Your task to perform on an android device: change text size in settings app Image 0: 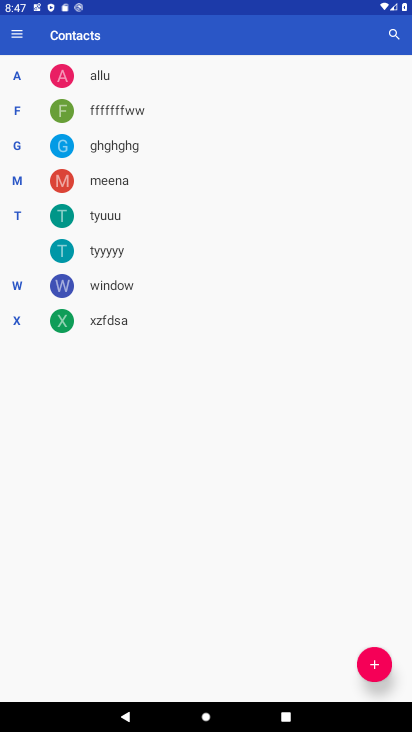
Step 0: press home button
Your task to perform on an android device: change text size in settings app Image 1: 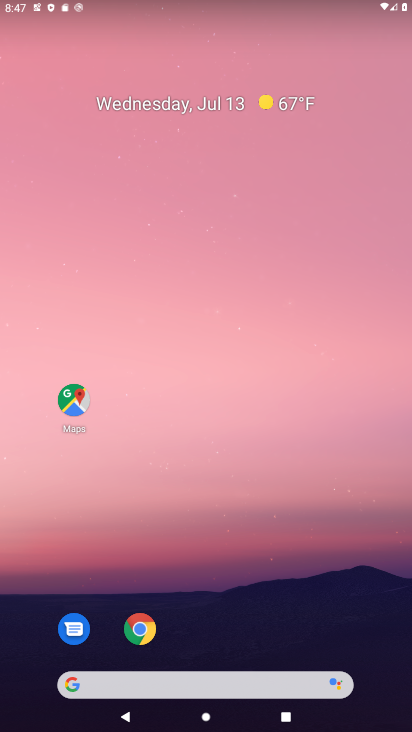
Step 1: drag from (241, 612) to (139, 1)
Your task to perform on an android device: change text size in settings app Image 2: 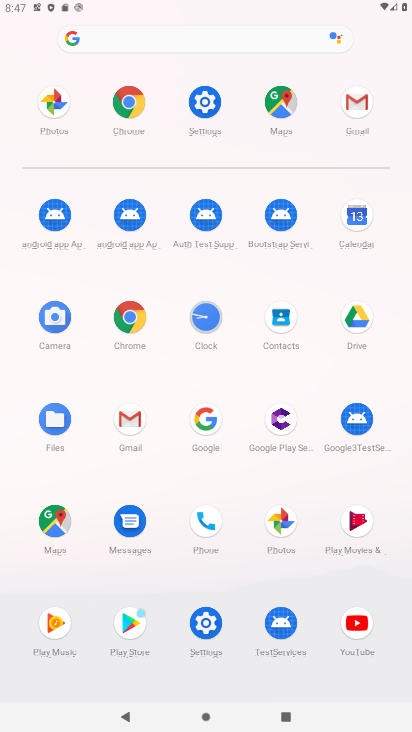
Step 2: click (197, 631)
Your task to perform on an android device: change text size in settings app Image 3: 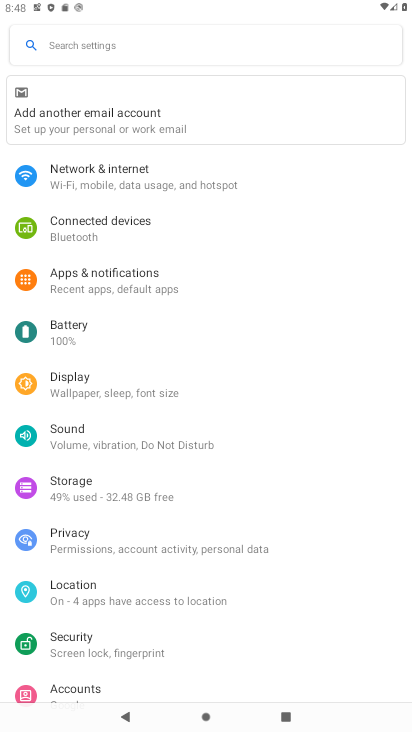
Step 3: click (120, 390)
Your task to perform on an android device: change text size in settings app Image 4: 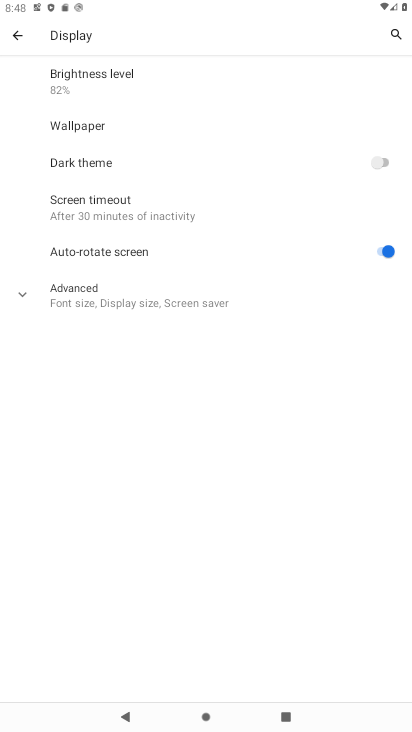
Step 4: click (87, 299)
Your task to perform on an android device: change text size in settings app Image 5: 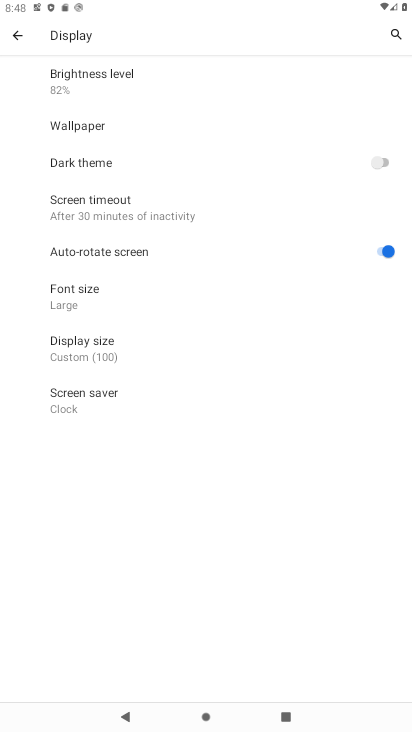
Step 5: click (84, 286)
Your task to perform on an android device: change text size in settings app Image 6: 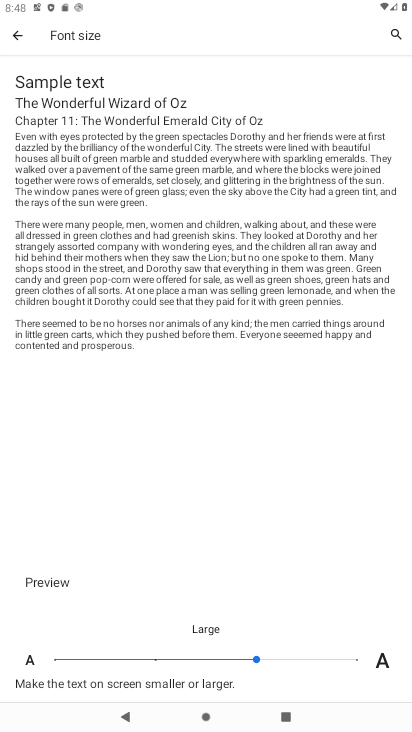
Step 6: click (358, 656)
Your task to perform on an android device: change text size in settings app Image 7: 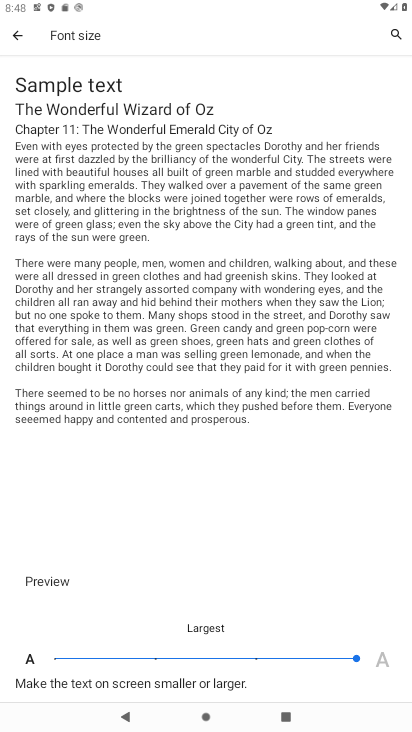
Step 7: task complete